Your task to perform on an android device: open wifi settings Image 0: 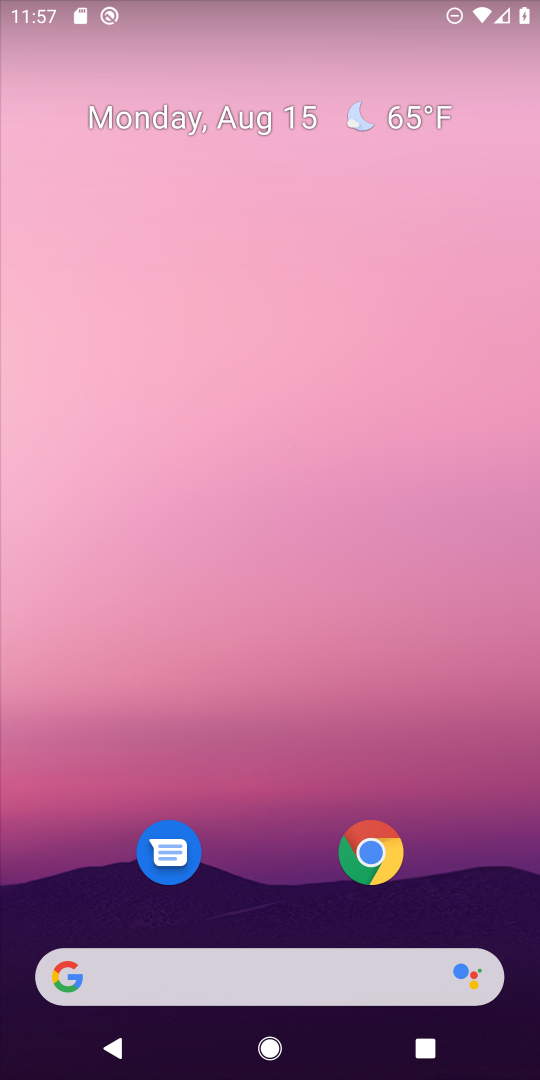
Step 0: drag from (159, 21) to (271, 812)
Your task to perform on an android device: open wifi settings Image 1: 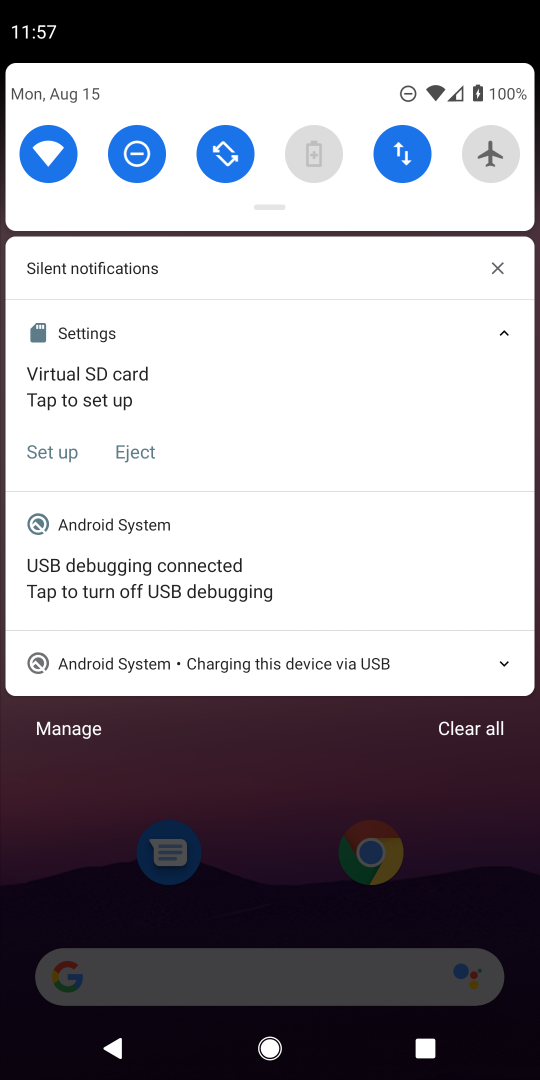
Step 1: click (53, 154)
Your task to perform on an android device: open wifi settings Image 2: 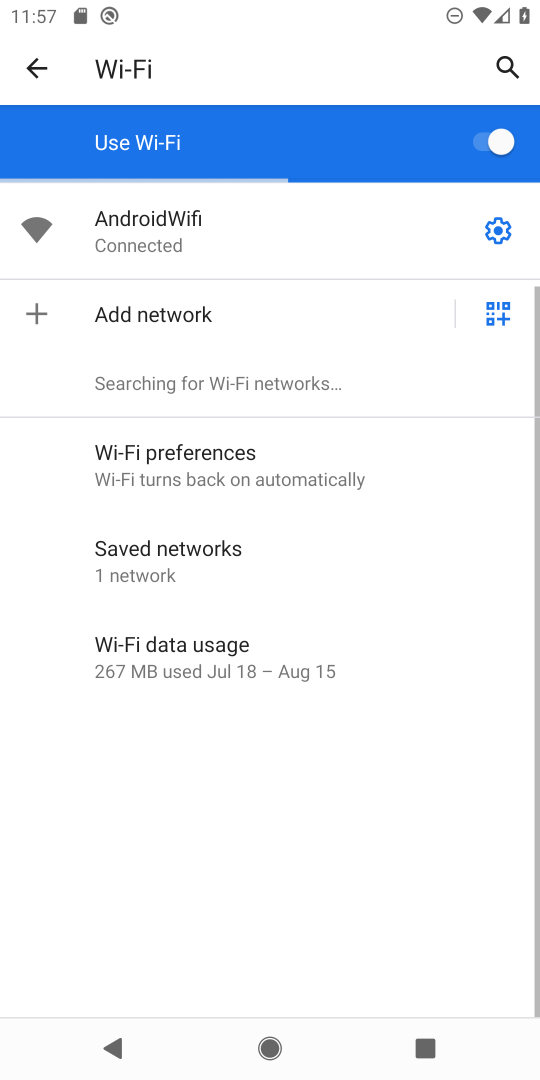
Step 2: task complete